Your task to perform on an android device: delete browsing data in the chrome app Image 0: 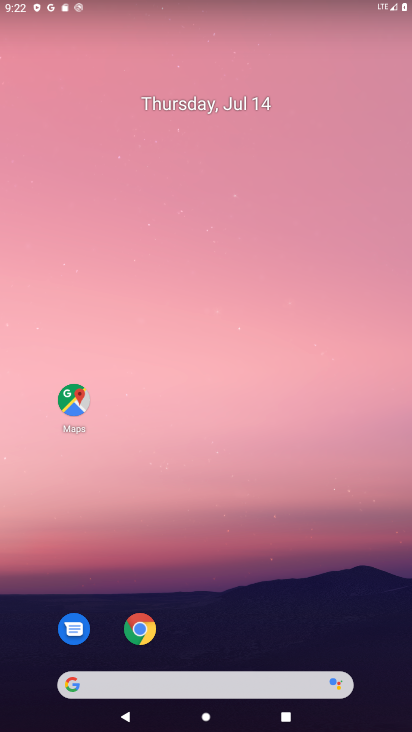
Step 0: click (144, 633)
Your task to perform on an android device: delete browsing data in the chrome app Image 1: 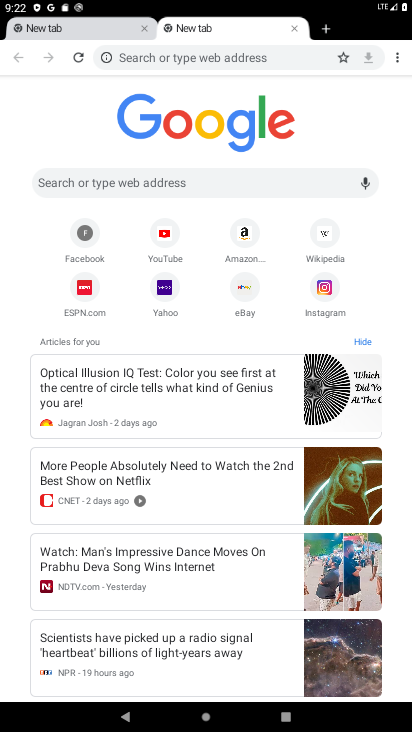
Step 1: click (395, 55)
Your task to perform on an android device: delete browsing data in the chrome app Image 2: 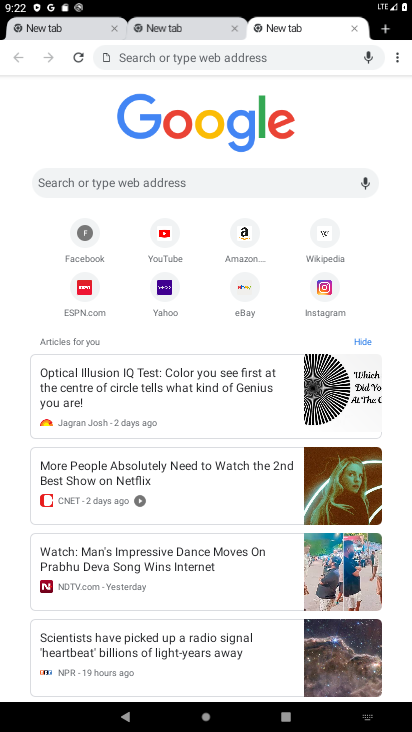
Step 2: click (394, 57)
Your task to perform on an android device: delete browsing data in the chrome app Image 3: 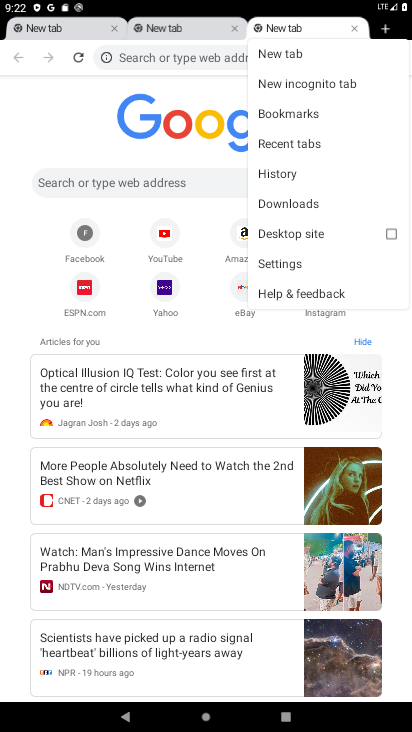
Step 3: click (270, 179)
Your task to perform on an android device: delete browsing data in the chrome app Image 4: 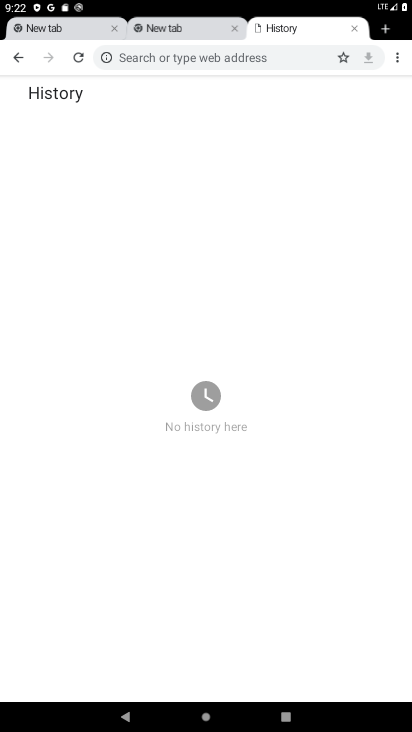
Step 4: task complete